Your task to perform on an android device: Go to Wikipedia Image 0: 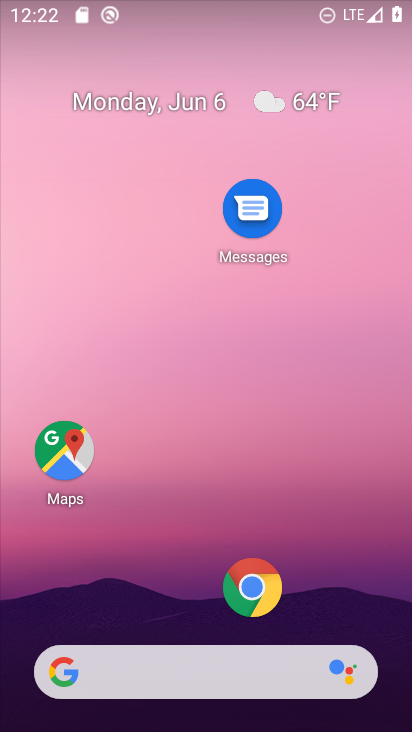
Step 0: click (257, 592)
Your task to perform on an android device: Go to Wikipedia Image 1: 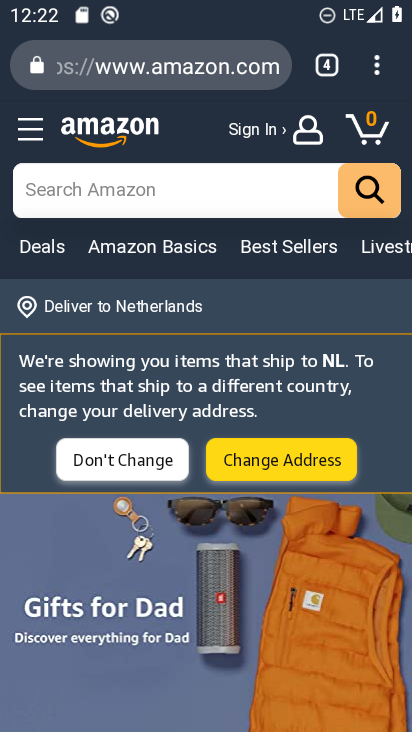
Step 1: click (330, 56)
Your task to perform on an android device: Go to Wikipedia Image 2: 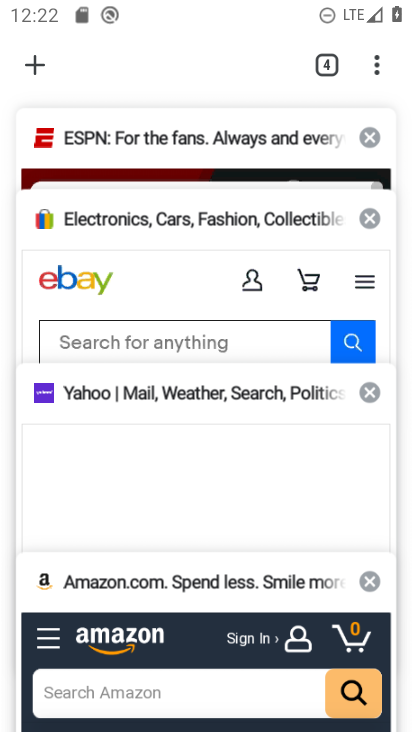
Step 2: click (38, 76)
Your task to perform on an android device: Go to Wikipedia Image 3: 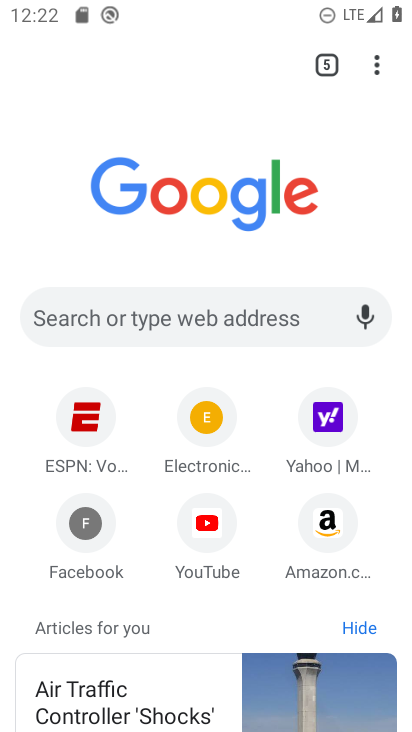
Step 3: click (140, 302)
Your task to perform on an android device: Go to Wikipedia Image 4: 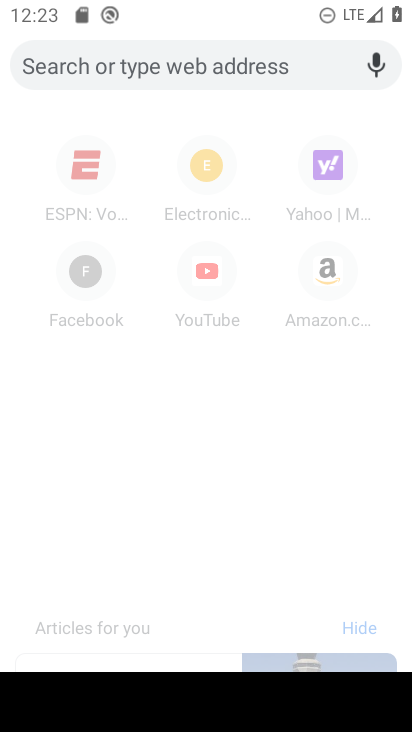
Step 4: type "wikipedia"
Your task to perform on an android device: Go to Wikipedia Image 5: 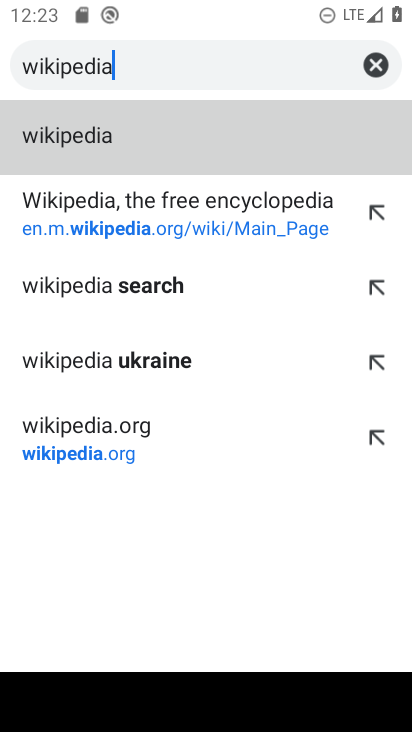
Step 5: click (163, 224)
Your task to perform on an android device: Go to Wikipedia Image 6: 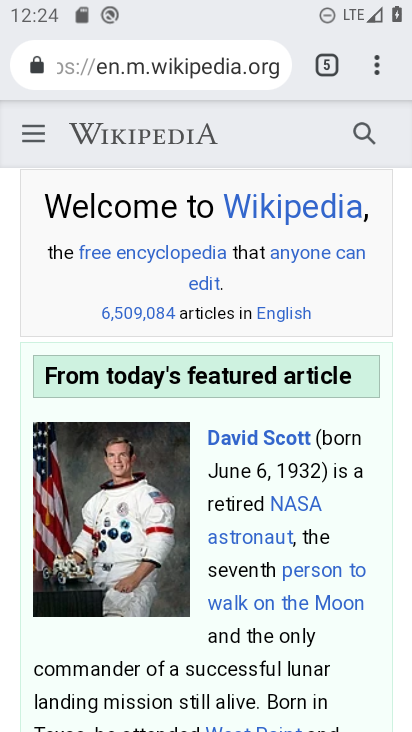
Step 6: task complete